Your task to perform on an android device: empty trash in google photos Image 0: 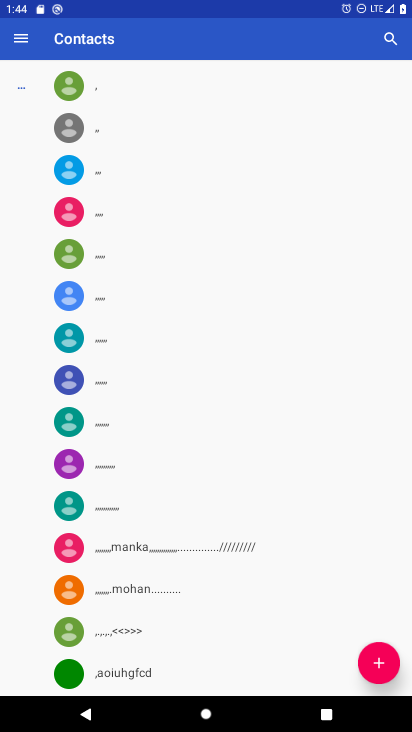
Step 0: press home button
Your task to perform on an android device: empty trash in google photos Image 1: 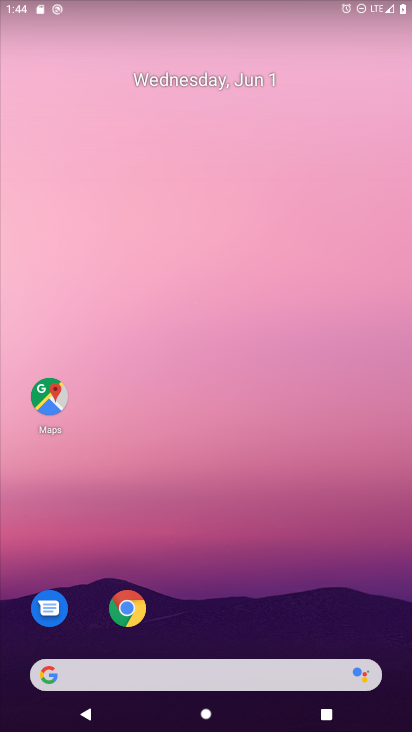
Step 1: drag from (236, 608) to (282, 279)
Your task to perform on an android device: empty trash in google photos Image 2: 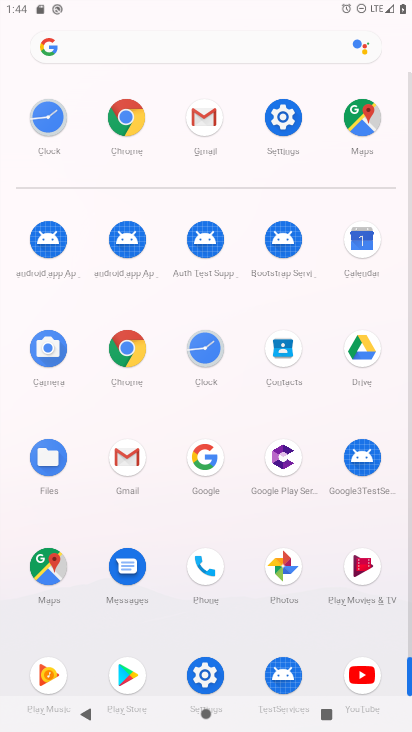
Step 2: click (286, 576)
Your task to perform on an android device: empty trash in google photos Image 3: 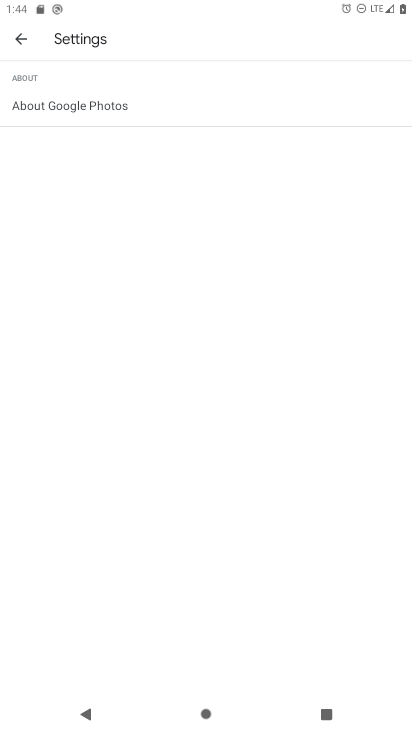
Step 3: click (21, 47)
Your task to perform on an android device: empty trash in google photos Image 4: 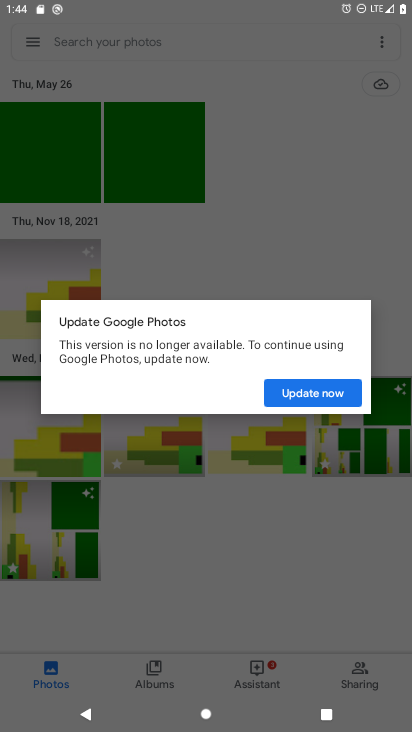
Step 4: click (297, 392)
Your task to perform on an android device: empty trash in google photos Image 5: 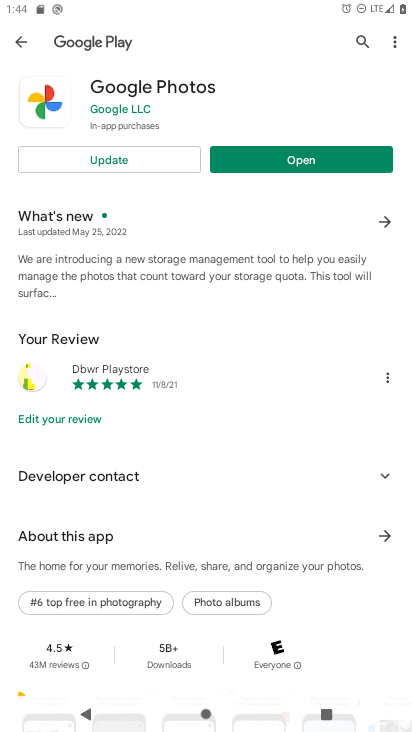
Step 5: click (133, 168)
Your task to perform on an android device: empty trash in google photos Image 6: 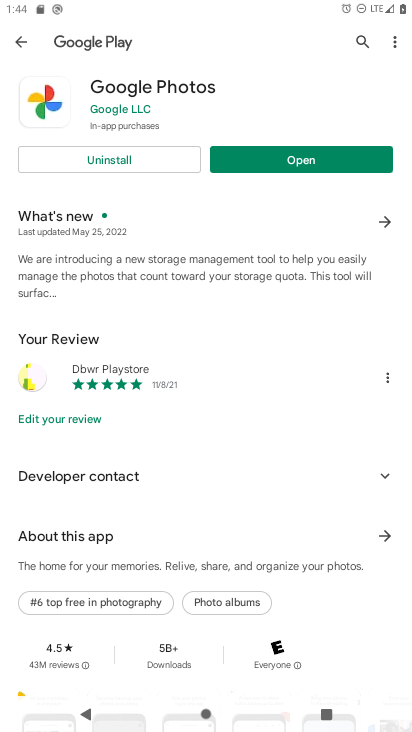
Step 6: click (303, 163)
Your task to perform on an android device: empty trash in google photos Image 7: 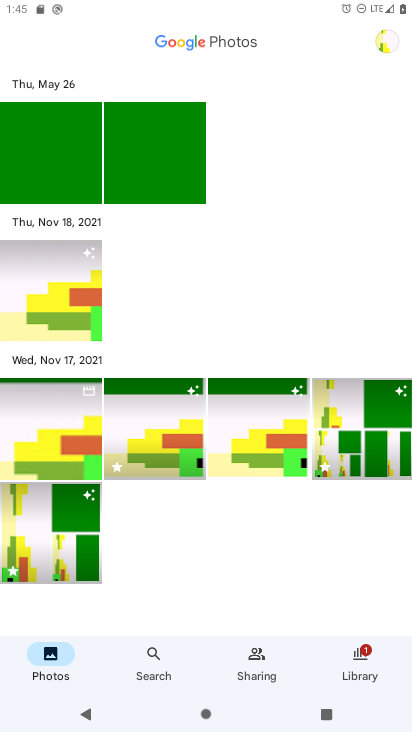
Step 7: click (359, 677)
Your task to perform on an android device: empty trash in google photos Image 8: 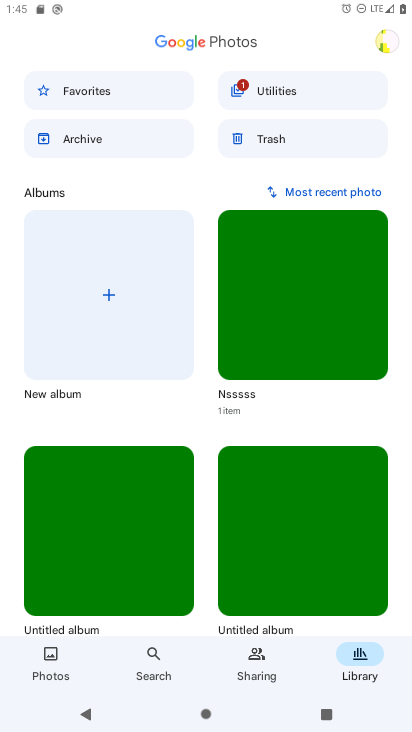
Step 8: click (263, 136)
Your task to perform on an android device: empty trash in google photos Image 9: 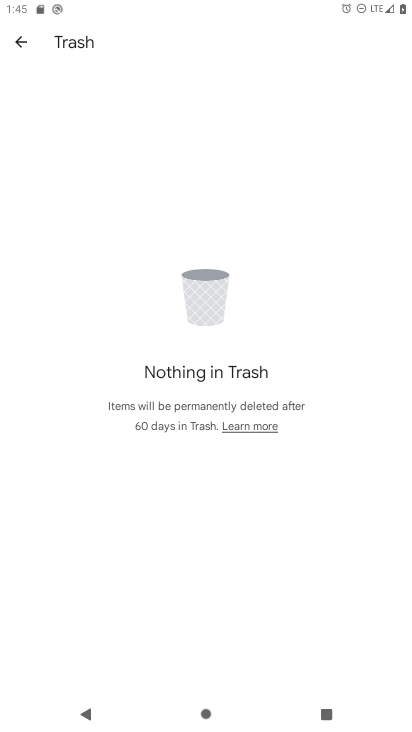
Step 9: task complete